Your task to perform on an android device: turn on the 24-hour format for clock Image 0: 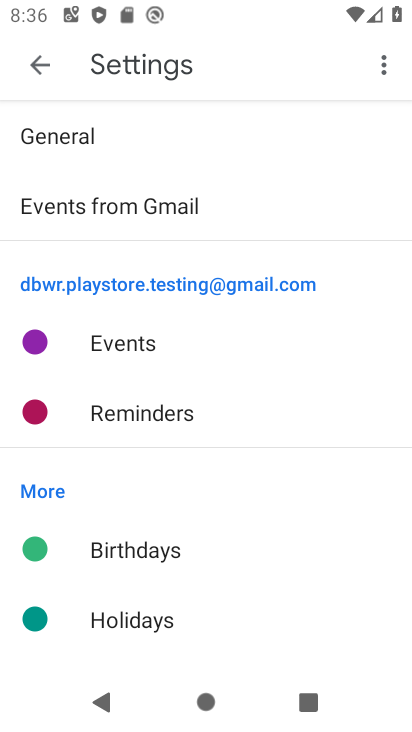
Step 0: press home button
Your task to perform on an android device: turn on the 24-hour format for clock Image 1: 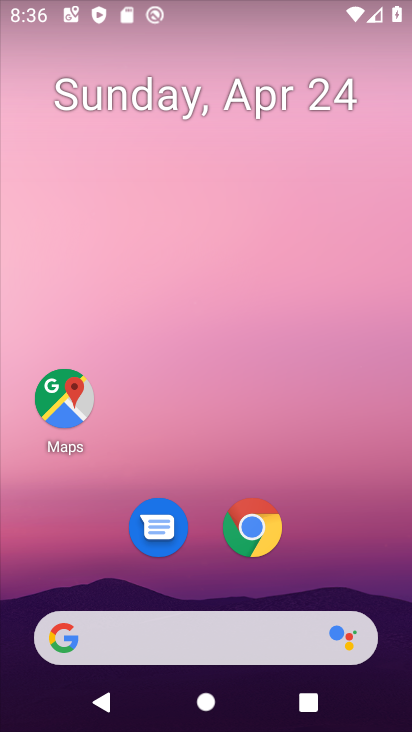
Step 1: drag from (298, 521) to (250, 55)
Your task to perform on an android device: turn on the 24-hour format for clock Image 2: 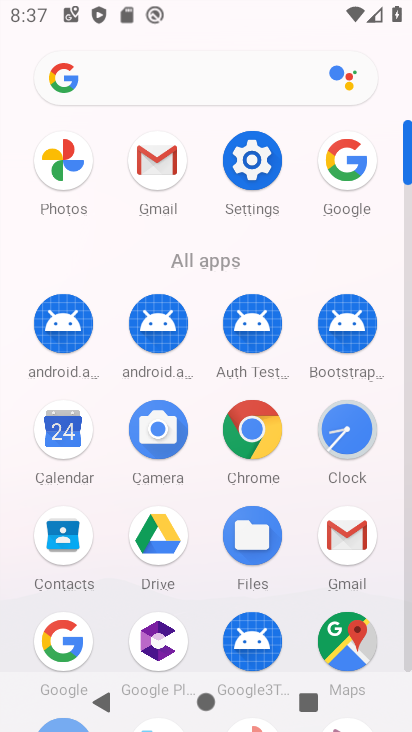
Step 2: click (349, 426)
Your task to perform on an android device: turn on the 24-hour format for clock Image 3: 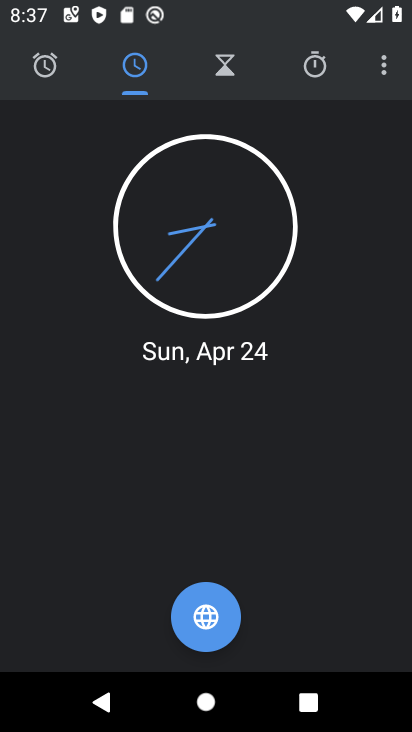
Step 3: click (396, 70)
Your task to perform on an android device: turn on the 24-hour format for clock Image 4: 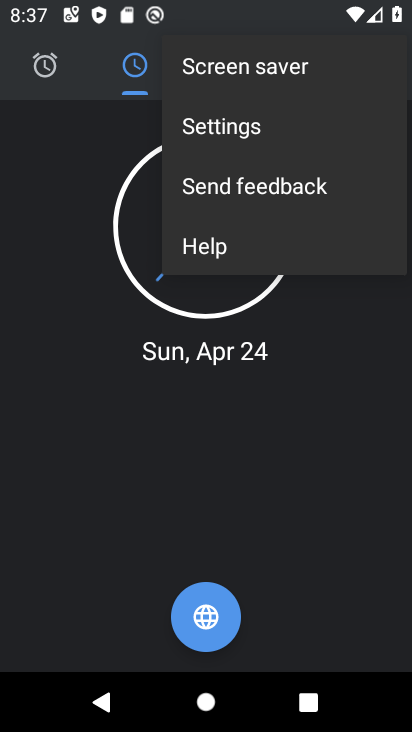
Step 4: click (251, 137)
Your task to perform on an android device: turn on the 24-hour format for clock Image 5: 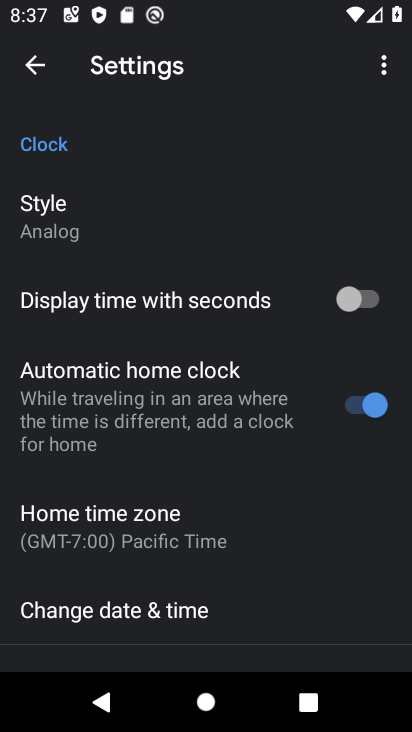
Step 5: click (192, 596)
Your task to perform on an android device: turn on the 24-hour format for clock Image 6: 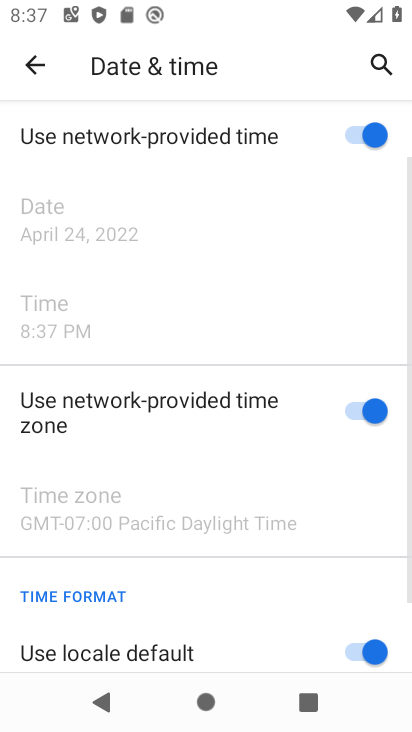
Step 6: drag from (306, 564) to (234, 163)
Your task to perform on an android device: turn on the 24-hour format for clock Image 7: 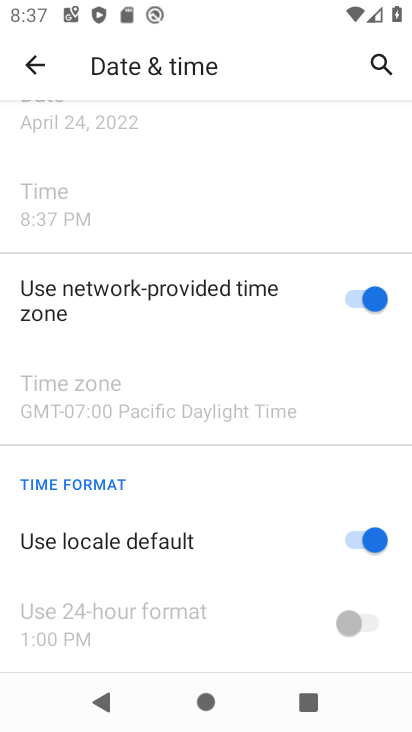
Step 7: click (351, 539)
Your task to perform on an android device: turn on the 24-hour format for clock Image 8: 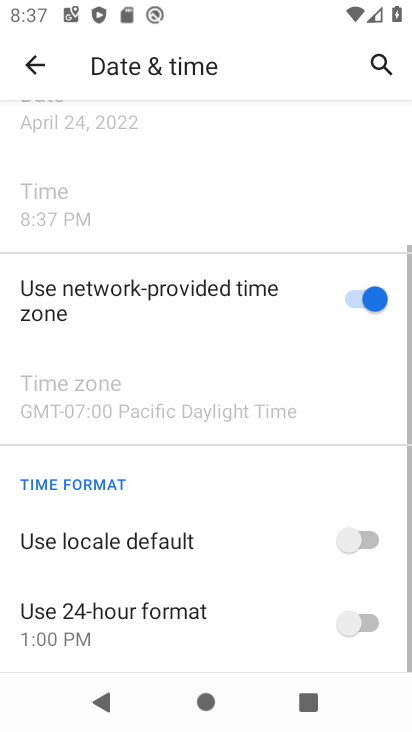
Step 8: click (367, 622)
Your task to perform on an android device: turn on the 24-hour format for clock Image 9: 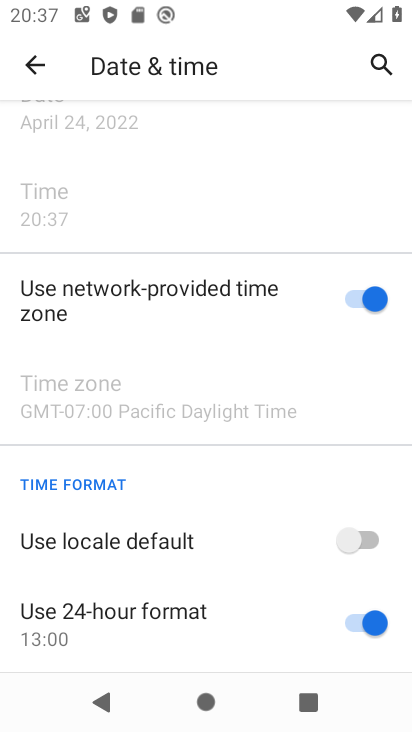
Step 9: task complete